Your task to perform on an android device: Search for seafood restaurants on Google Maps Image 0: 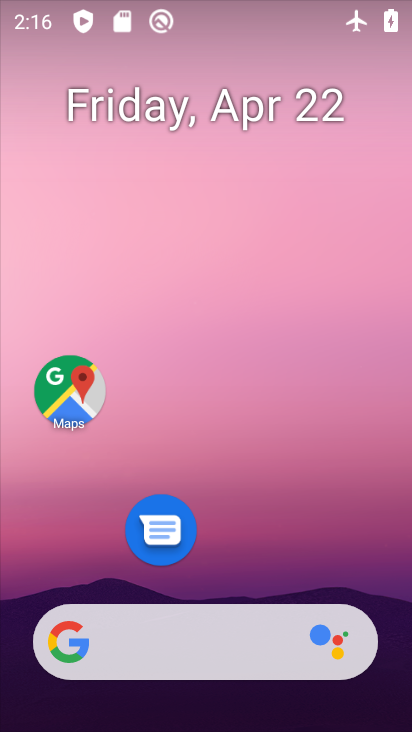
Step 0: drag from (289, 571) to (240, 73)
Your task to perform on an android device: Search for seafood restaurants on Google Maps Image 1: 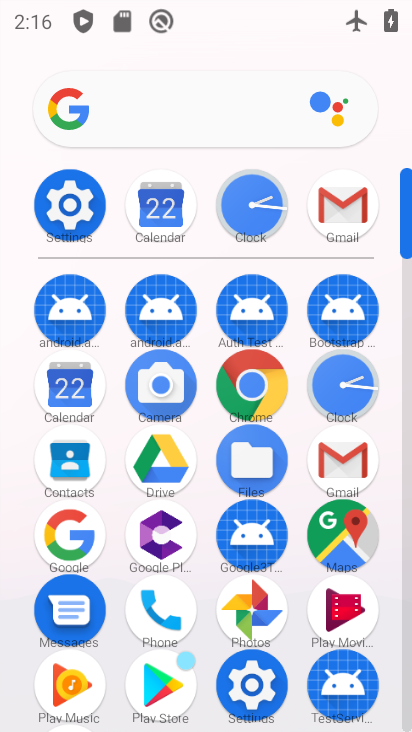
Step 1: click (342, 546)
Your task to perform on an android device: Search for seafood restaurants on Google Maps Image 2: 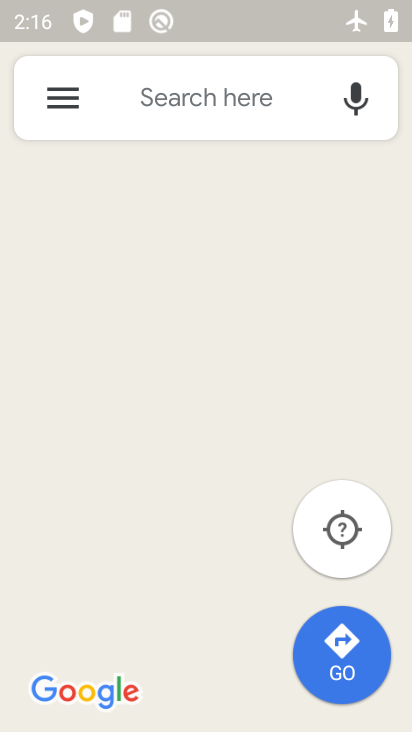
Step 2: click (158, 109)
Your task to perform on an android device: Search for seafood restaurants on Google Maps Image 3: 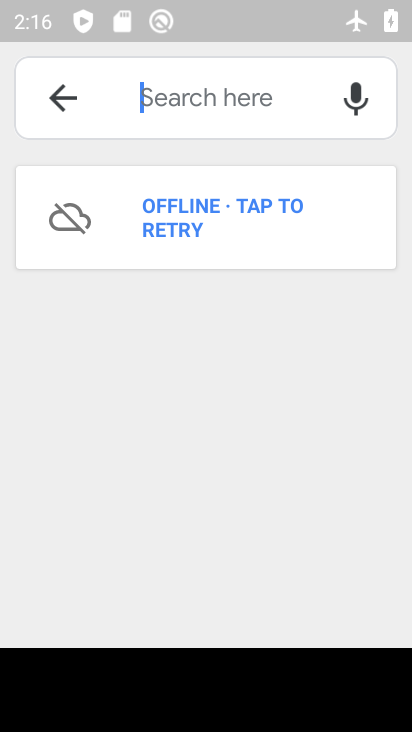
Step 3: type "seafood restaurants "
Your task to perform on an android device: Search for seafood restaurants on Google Maps Image 4: 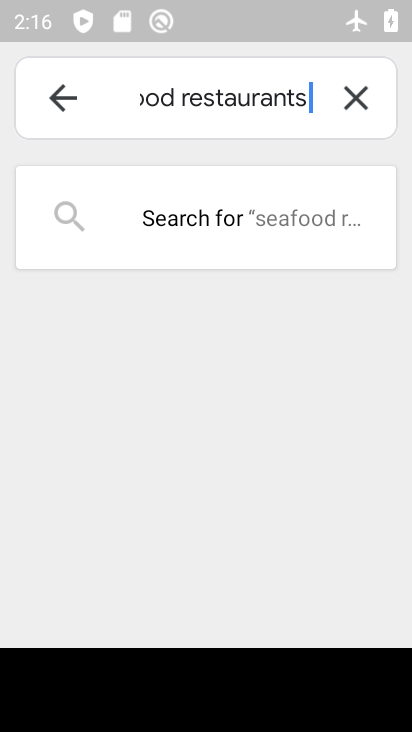
Step 4: type ""
Your task to perform on an android device: Search for seafood restaurants on Google Maps Image 5: 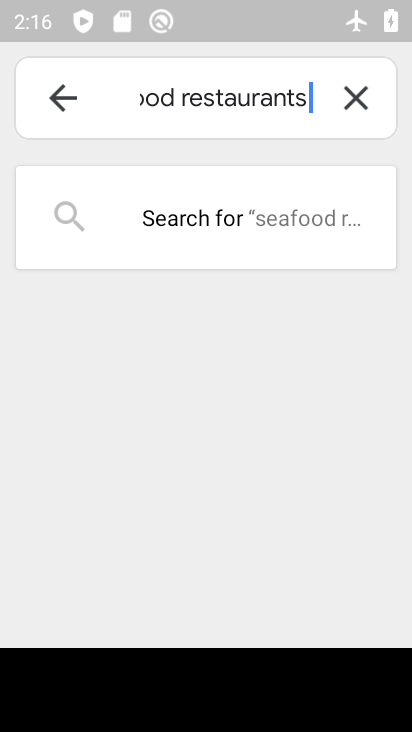
Step 5: task complete